Your task to perform on an android device: open app "Facebook Lite" (install if not already installed), go to login, and select forgot password Image 0: 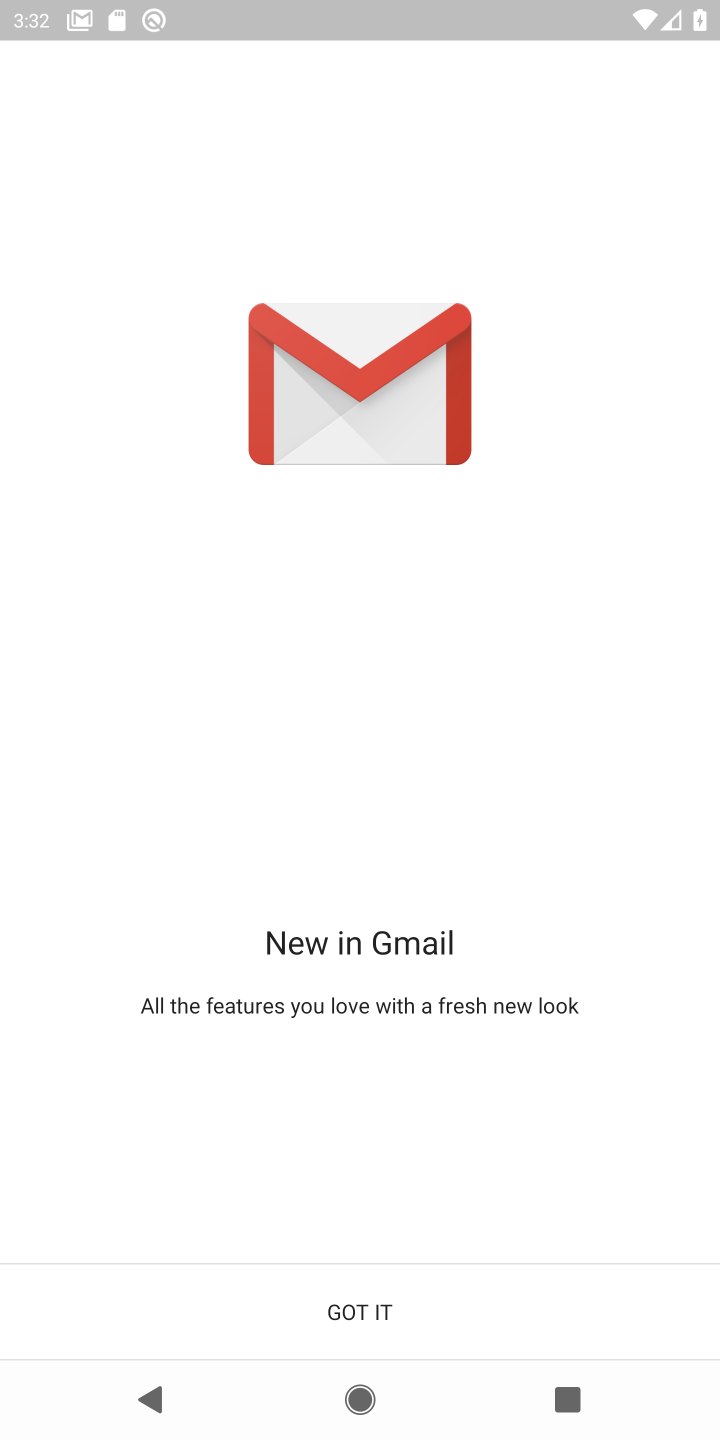
Step 0: click (337, 1304)
Your task to perform on an android device: open app "Facebook Lite" (install if not already installed), go to login, and select forgot password Image 1: 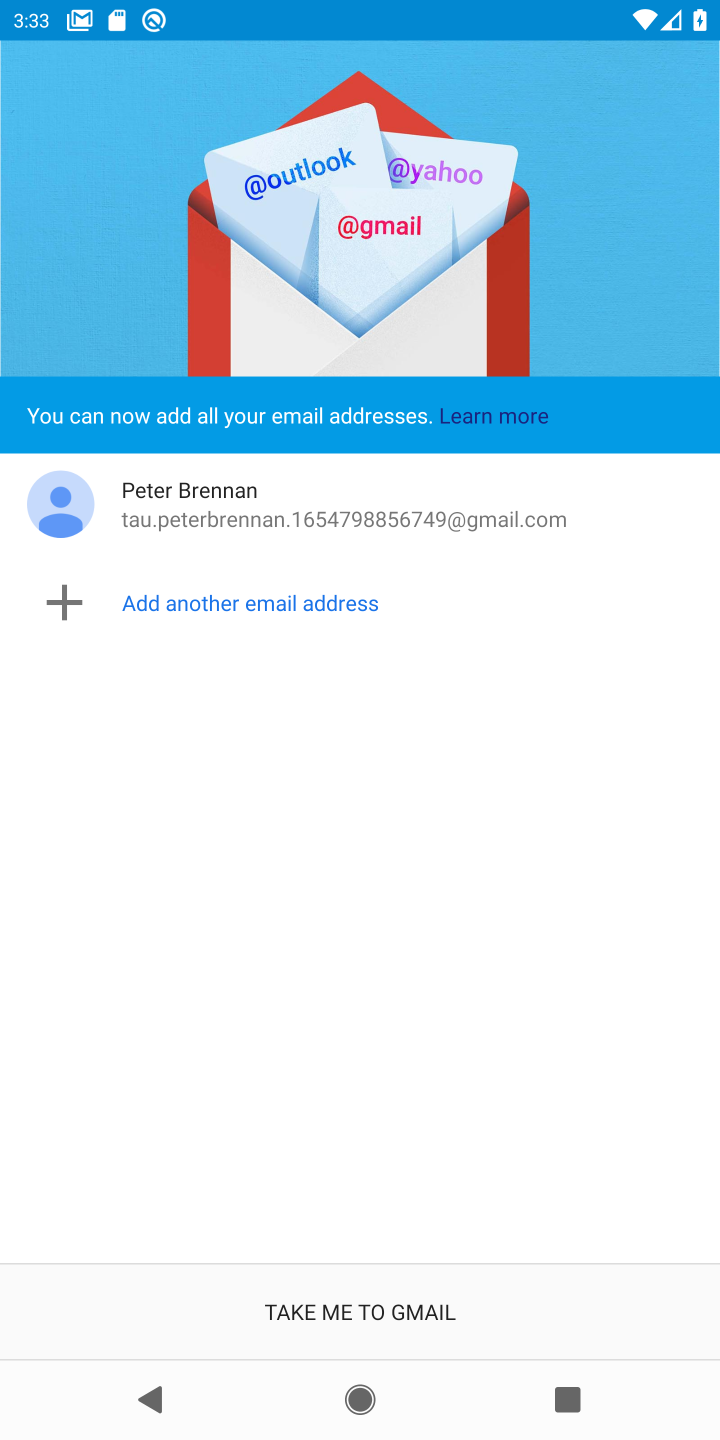
Step 1: press home button
Your task to perform on an android device: open app "Facebook Lite" (install if not already installed), go to login, and select forgot password Image 2: 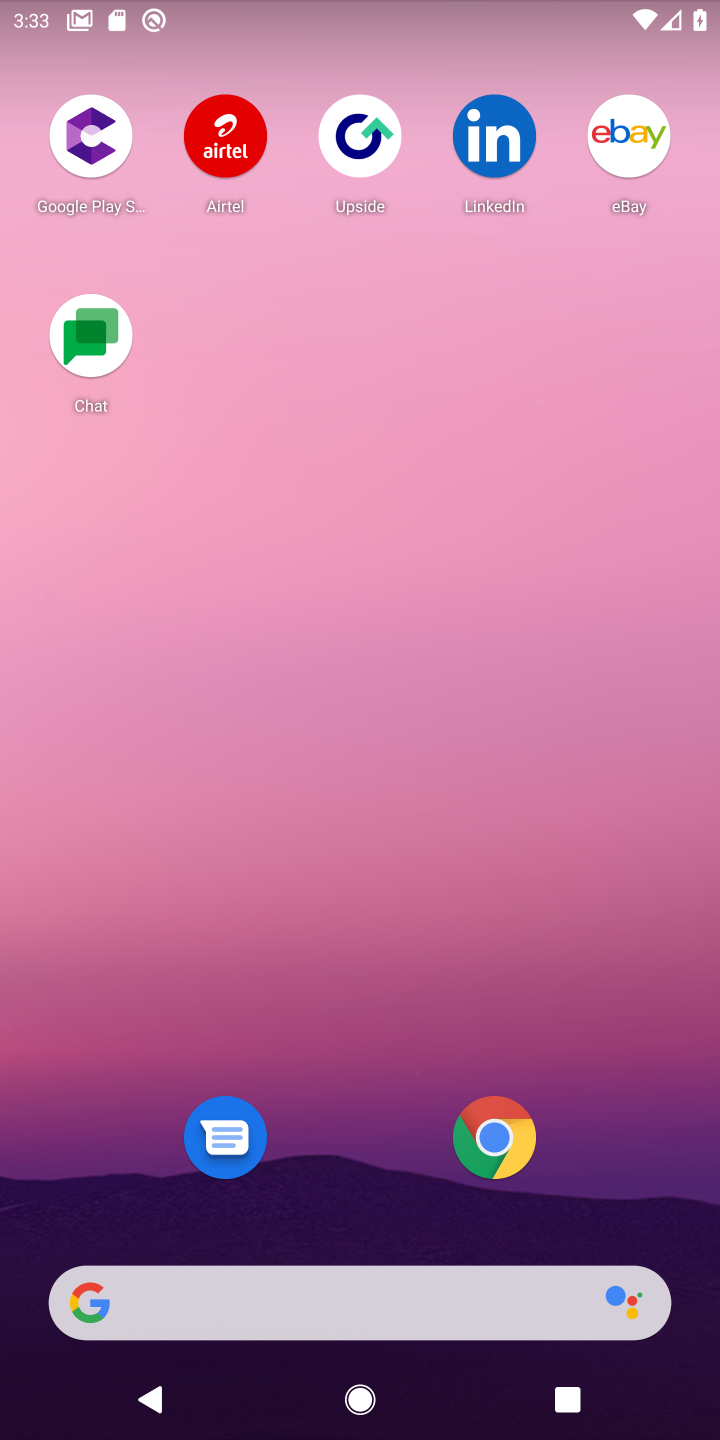
Step 2: drag from (380, 1144) to (482, 91)
Your task to perform on an android device: open app "Facebook Lite" (install if not already installed), go to login, and select forgot password Image 3: 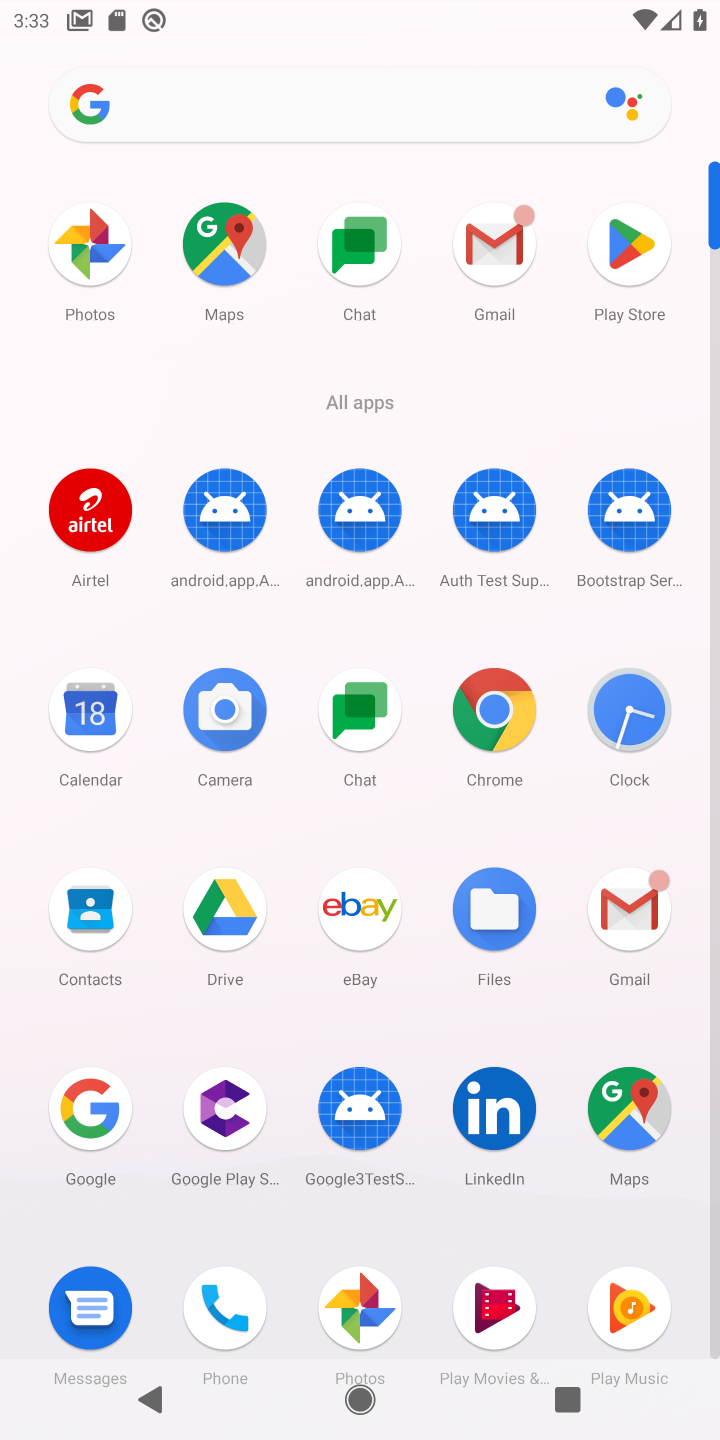
Step 3: click (630, 232)
Your task to perform on an android device: open app "Facebook Lite" (install if not already installed), go to login, and select forgot password Image 4: 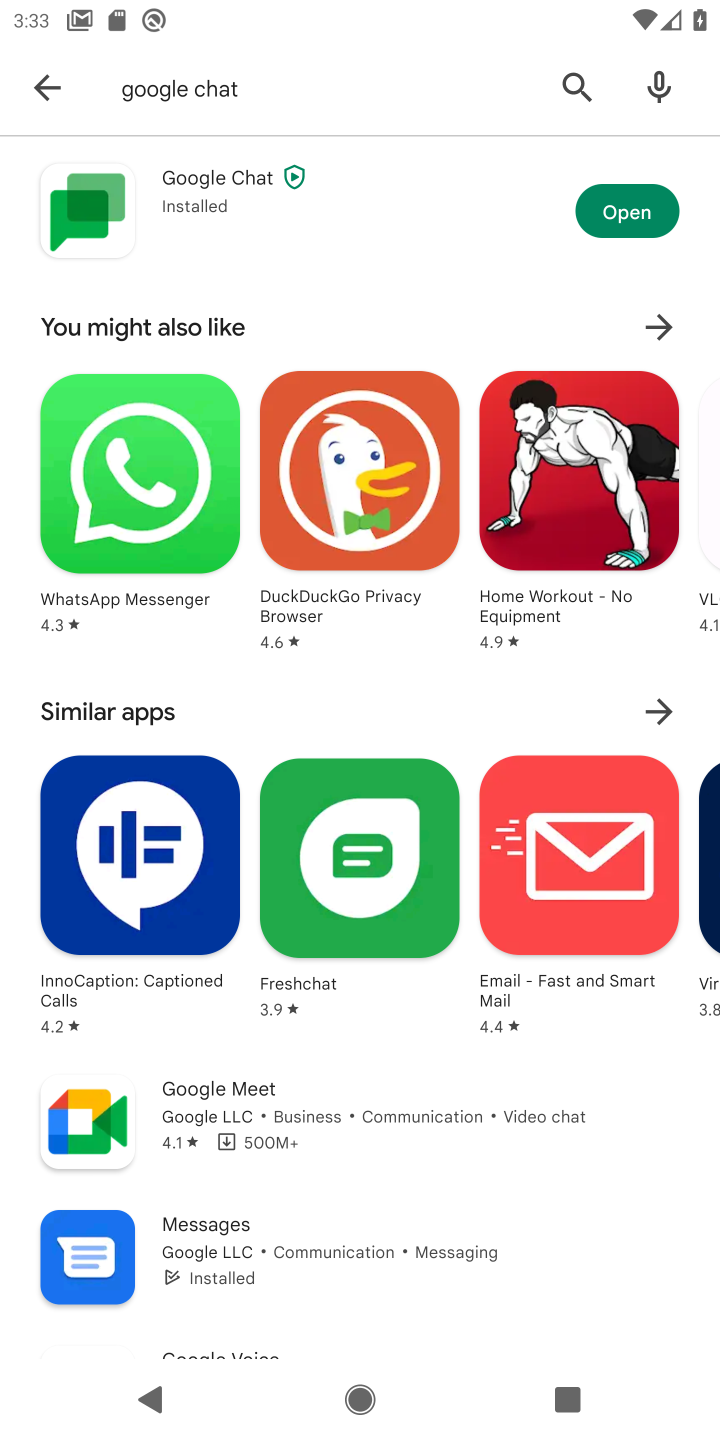
Step 4: click (48, 98)
Your task to perform on an android device: open app "Facebook Lite" (install if not already installed), go to login, and select forgot password Image 5: 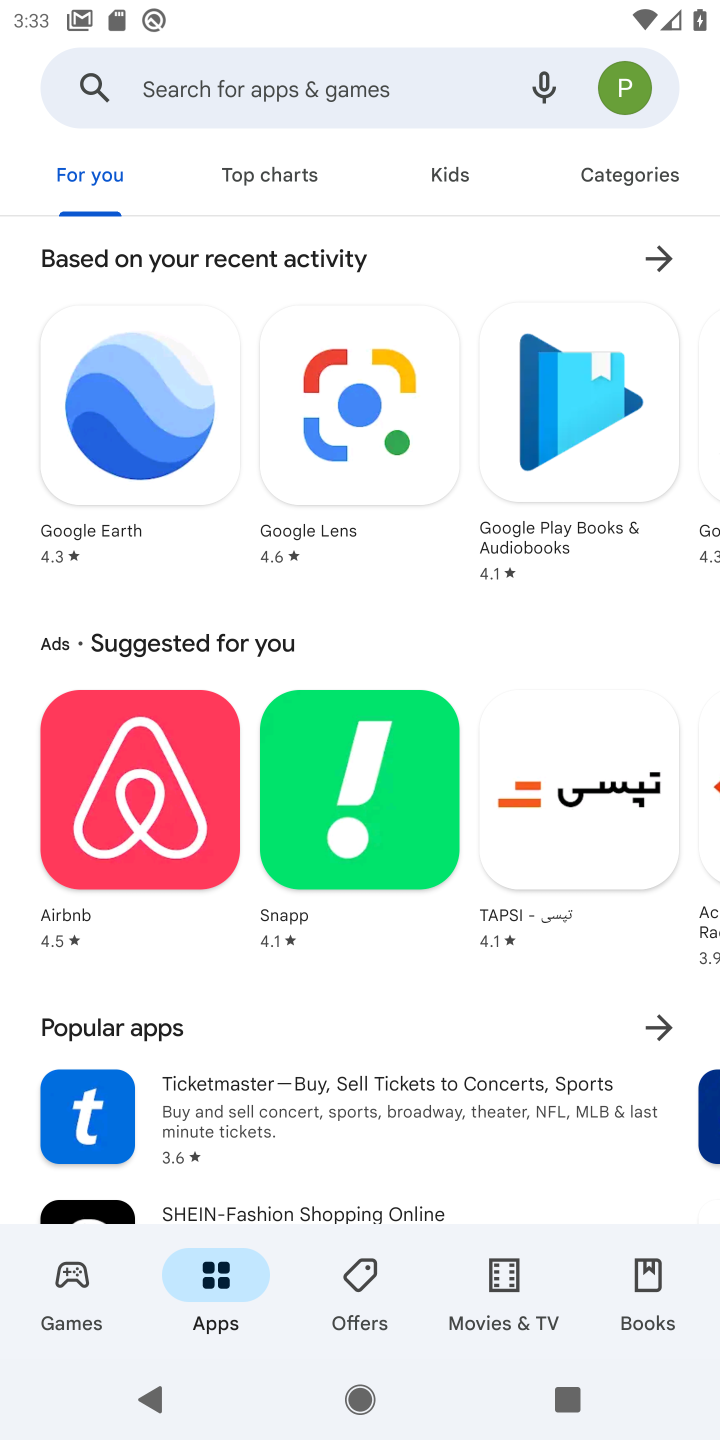
Step 5: click (267, 99)
Your task to perform on an android device: open app "Facebook Lite" (install if not already installed), go to login, and select forgot password Image 6: 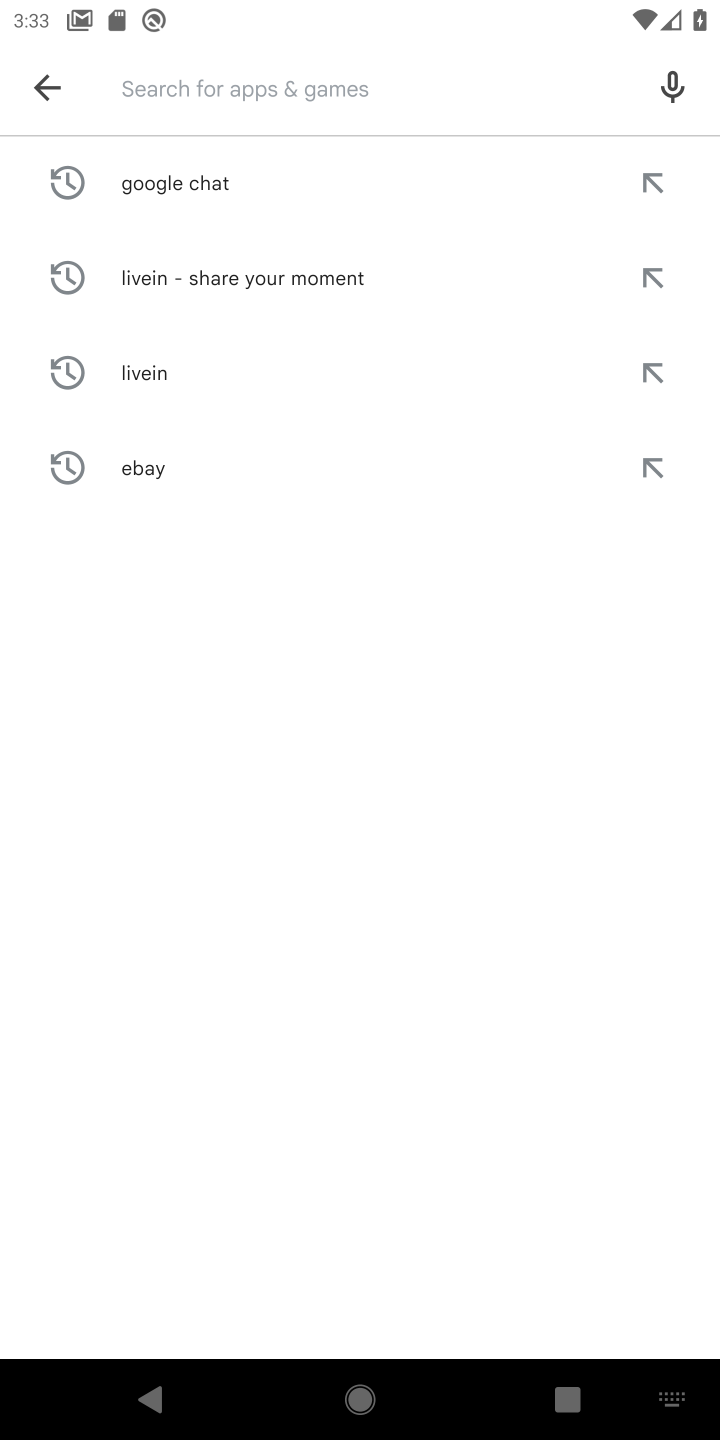
Step 6: type "Facebook Lite"
Your task to perform on an android device: open app "Facebook Lite" (install if not already installed), go to login, and select forgot password Image 7: 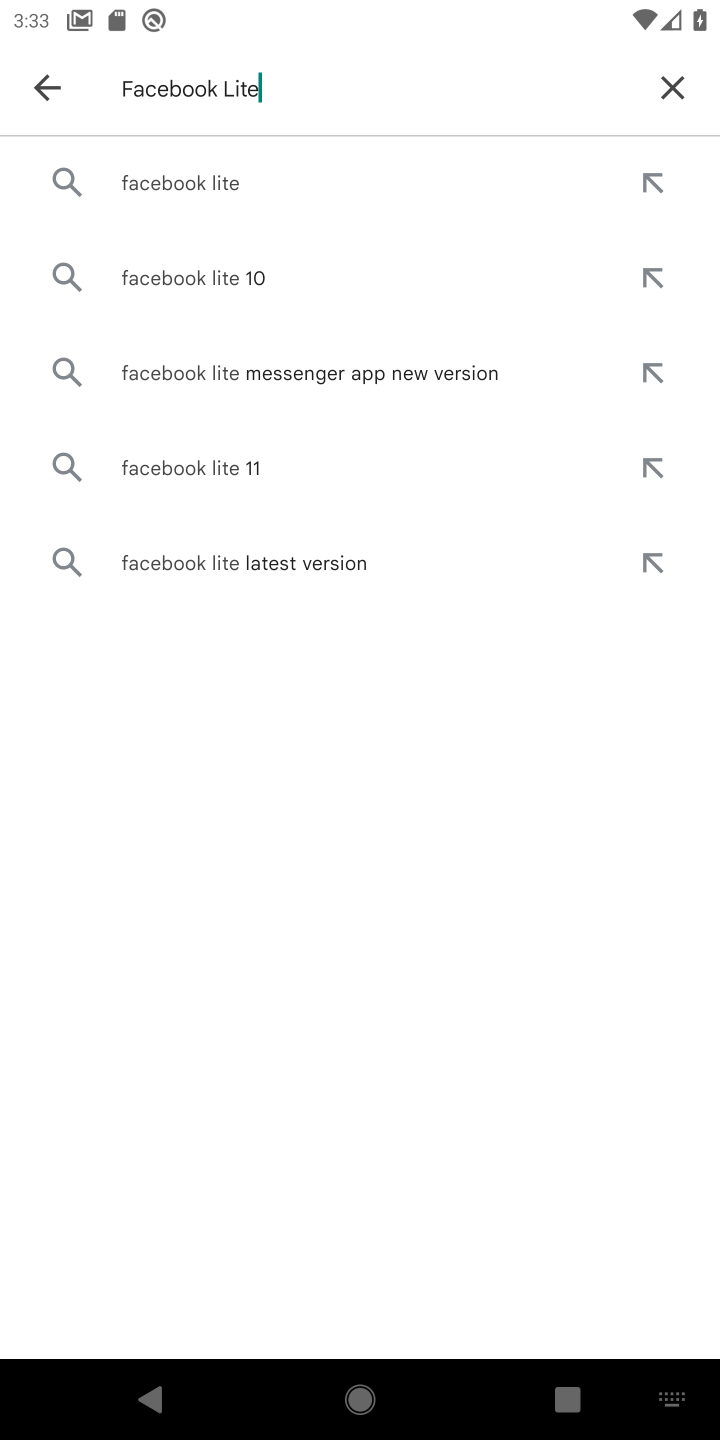
Step 7: click (209, 186)
Your task to perform on an android device: open app "Facebook Lite" (install if not already installed), go to login, and select forgot password Image 8: 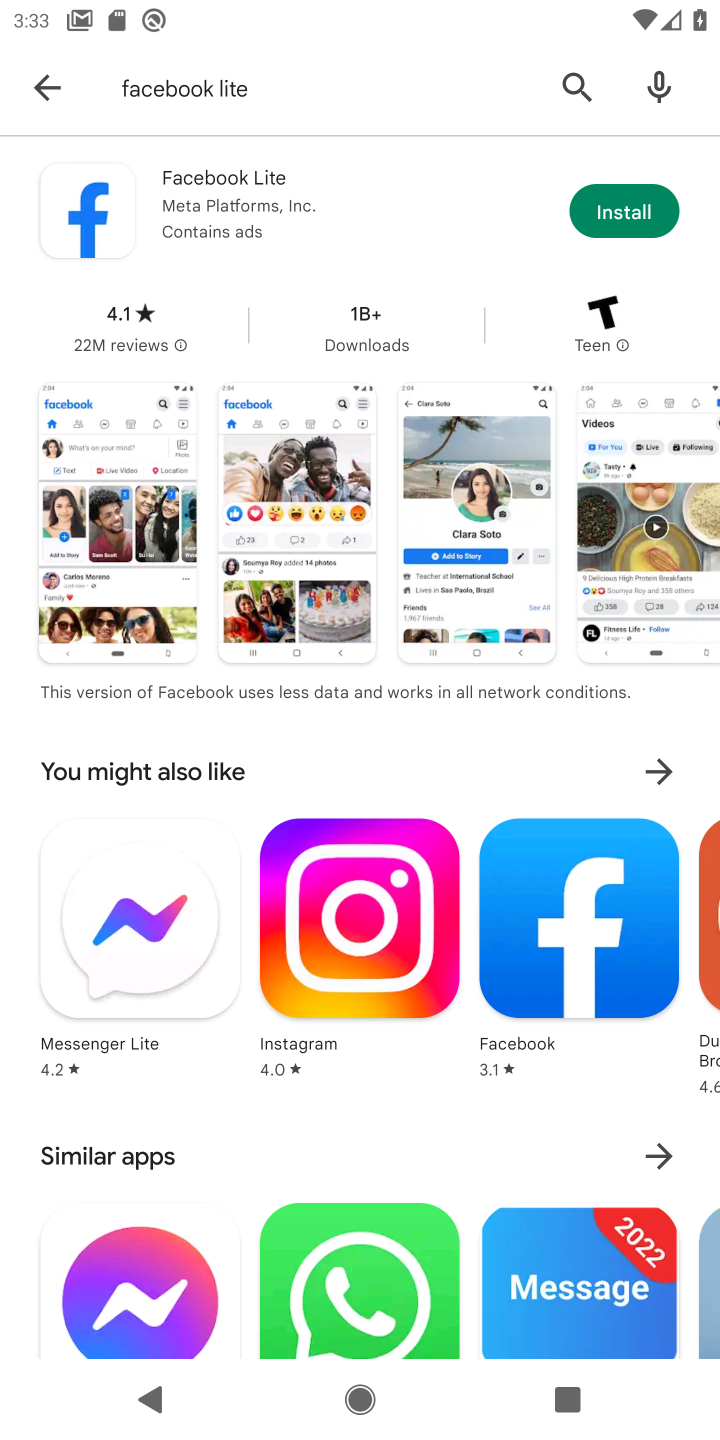
Step 8: click (616, 222)
Your task to perform on an android device: open app "Facebook Lite" (install if not already installed), go to login, and select forgot password Image 9: 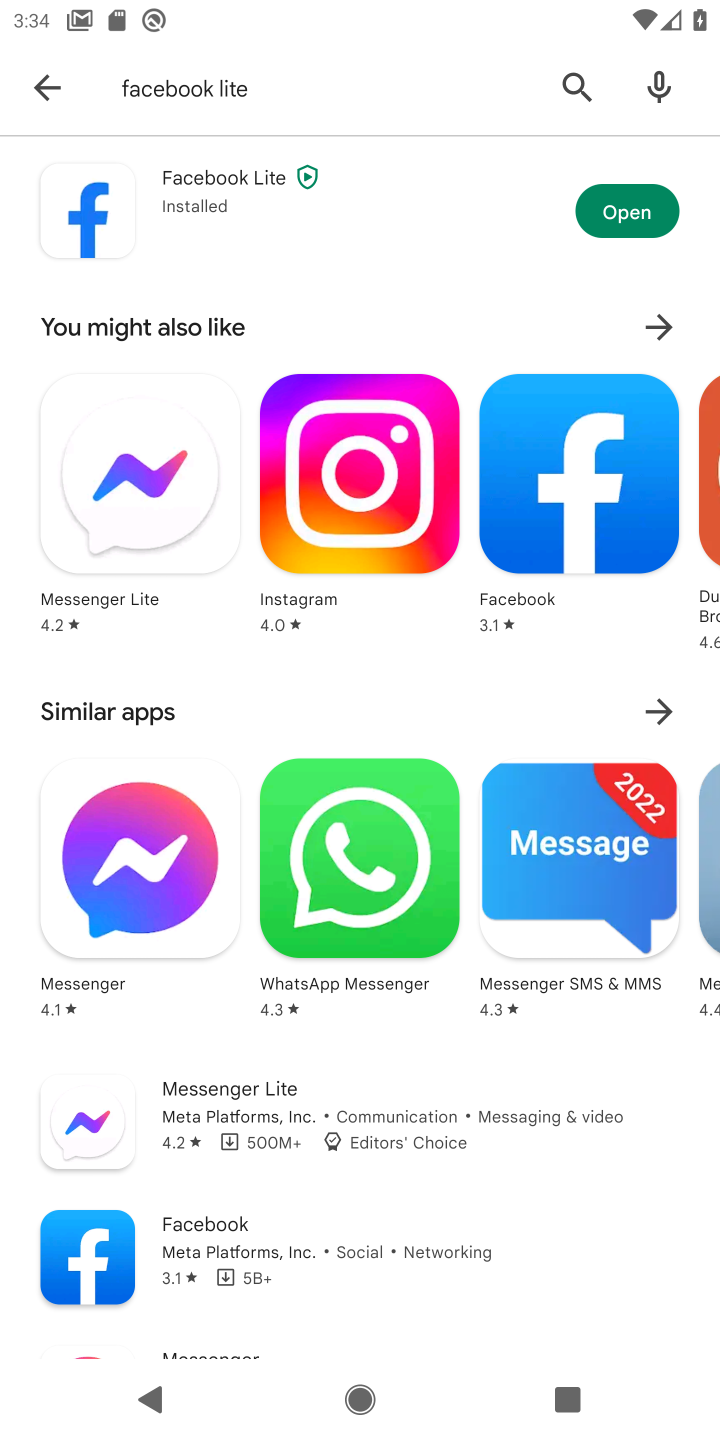
Step 9: click (616, 222)
Your task to perform on an android device: open app "Facebook Lite" (install if not already installed), go to login, and select forgot password Image 10: 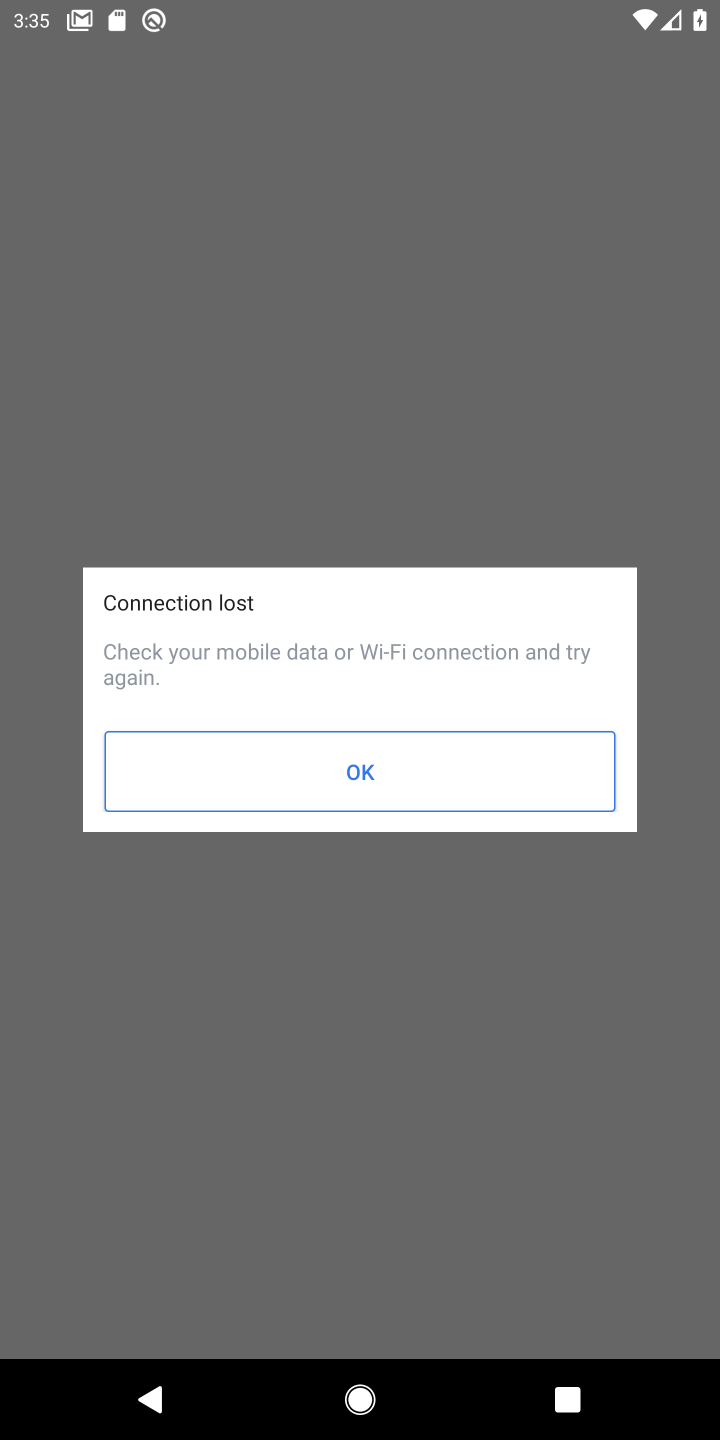
Step 10: click (358, 769)
Your task to perform on an android device: open app "Facebook Lite" (install if not already installed), go to login, and select forgot password Image 11: 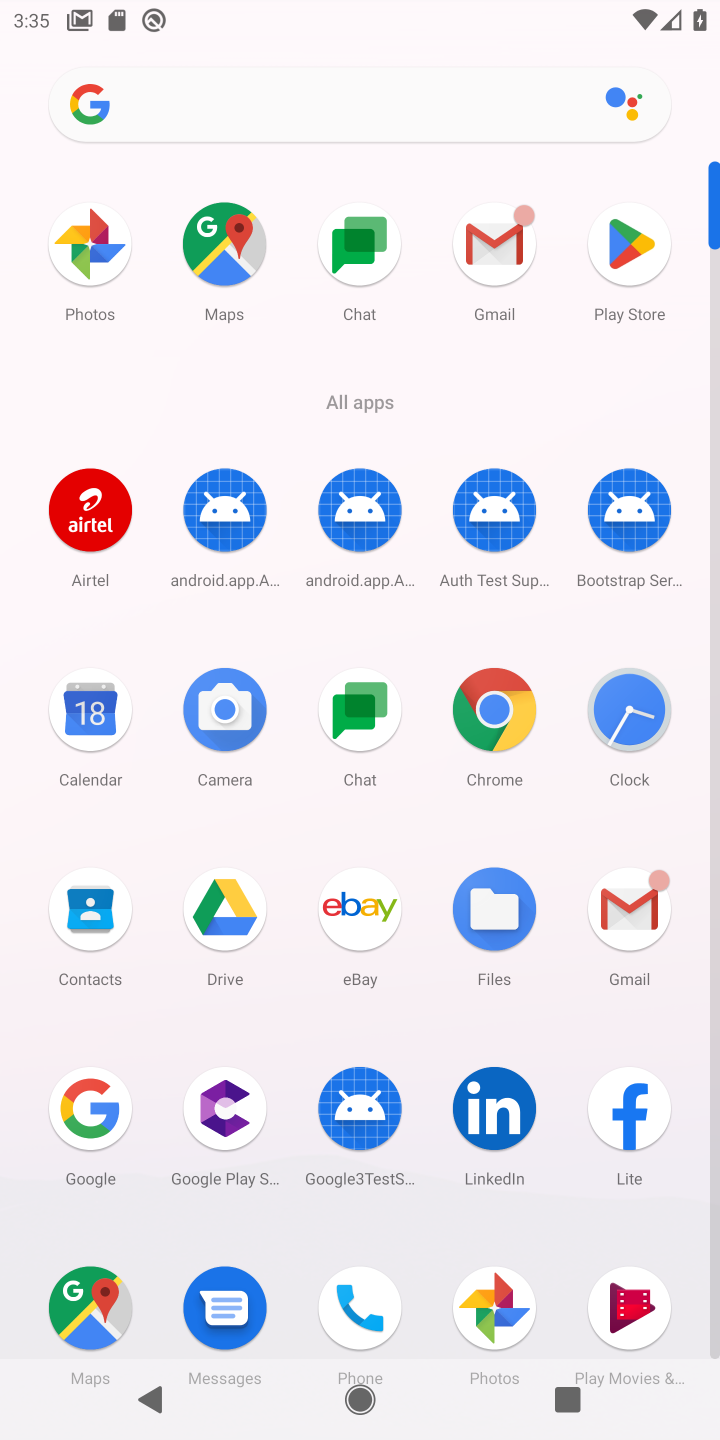
Step 11: task complete